Your task to perform on an android device: change keyboard looks Image 0: 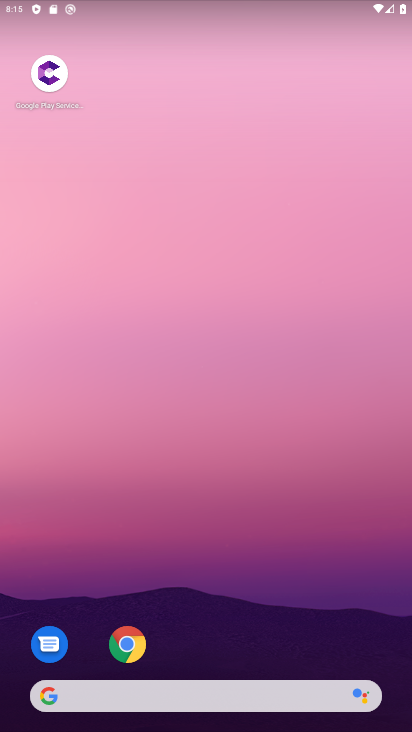
Step 0: drag from (359, 657) to (307, 69)
Your task to perform on an android device: change keyboard looks Image 1: 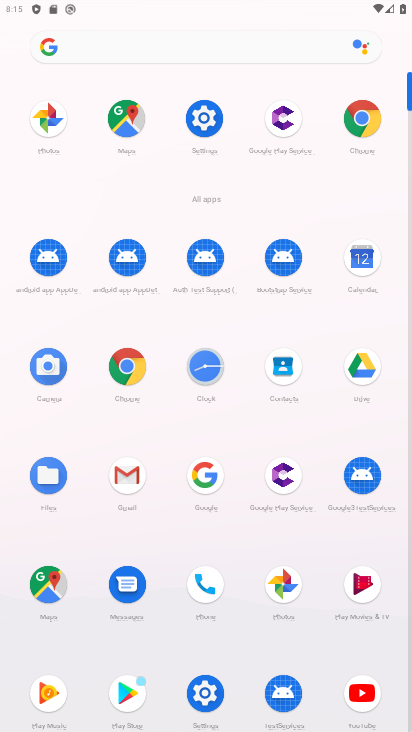
Step 1: click (201, 690)
Your task to perform on an android device: change keyboard looks Image 2: 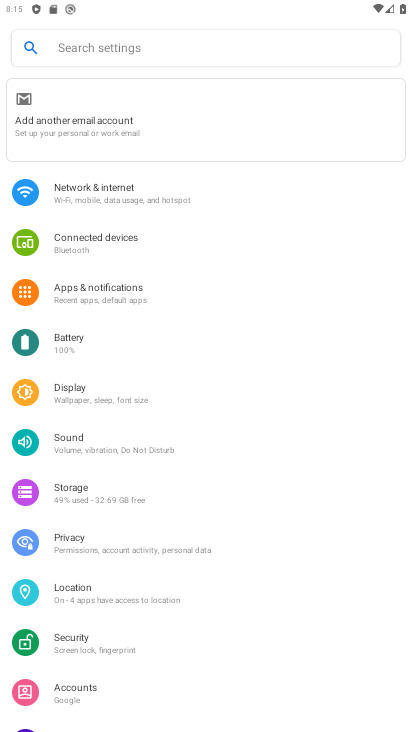
Step 2: drag from (150, 679) to (224, 306)
Your task to perform on an android device: change keyboard looks Image 3: 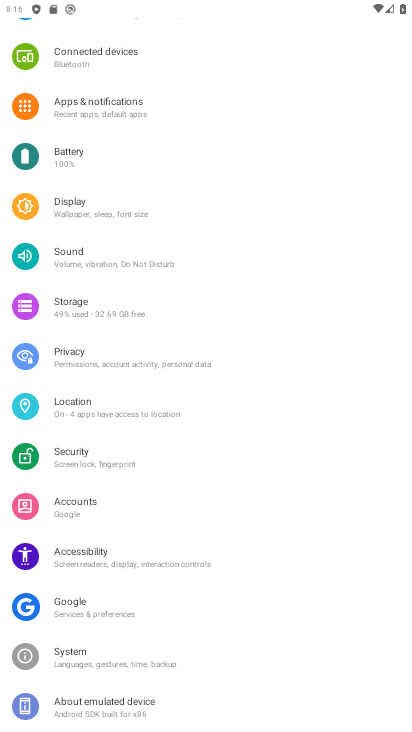
Step 3: click (96, 653)
Your task to perform on an android device: change keyboard looks Image 4: 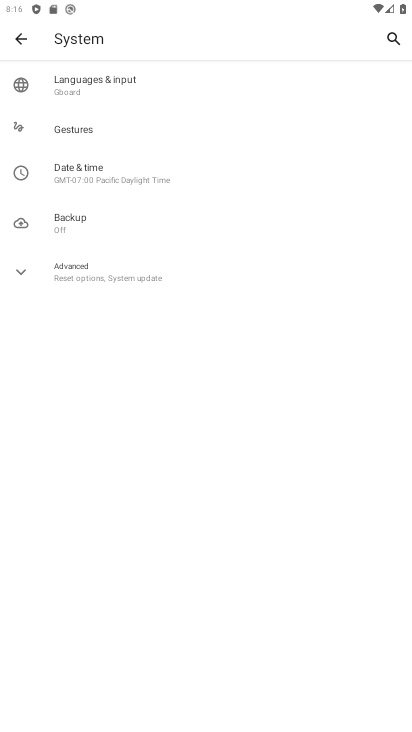
Step 4: click (98, 77)
Your task to perform on an android device: change keyboard looks Image 5: 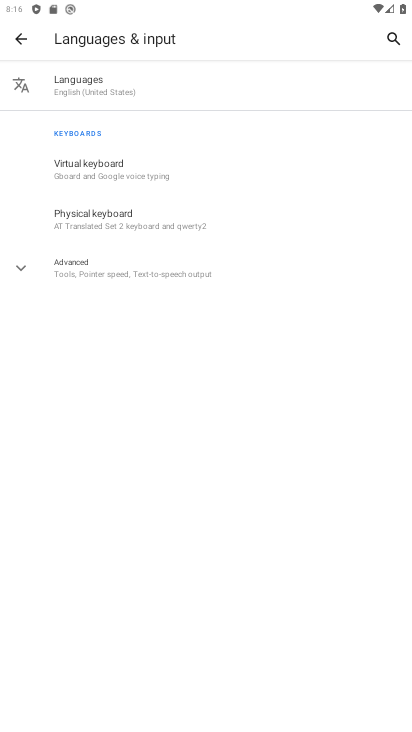
Step 5: click (88, 220)
Your task to perform on an android device: change keyboard looks Image 6: 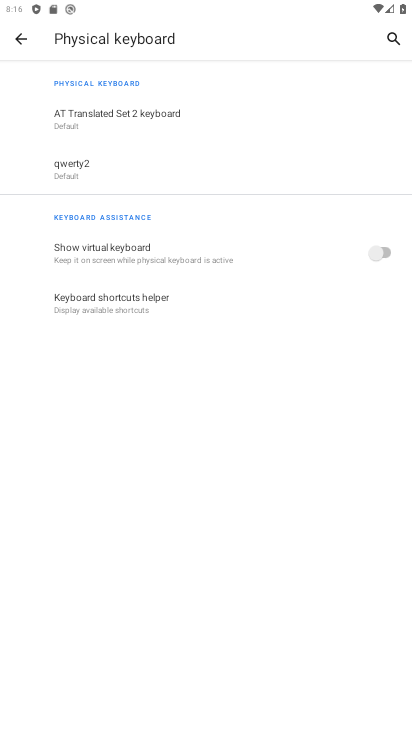
Step 6: click (62, 173)
Your task to perform on an android device: change keyboard looks Image 7: 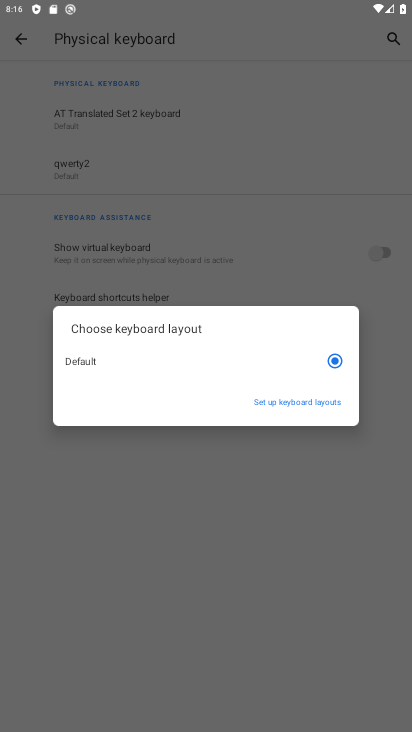
Step 7: click (293, 401)
Your task to perform on an android device: change keyboard looks Image 8: 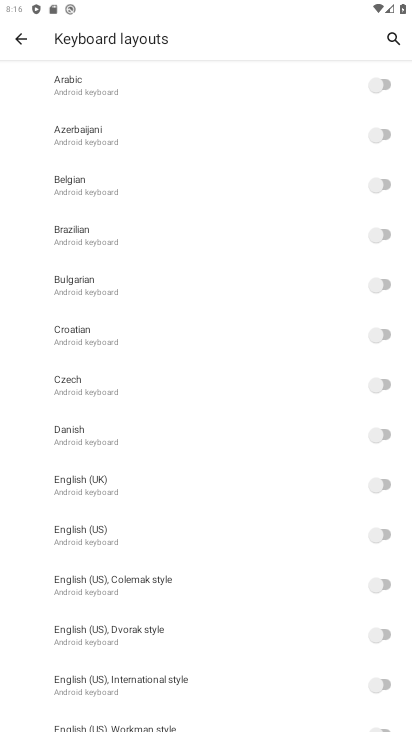
Step 8: click (390, 580)
Your task to perform on an android device: change keyboard looks Image 9: 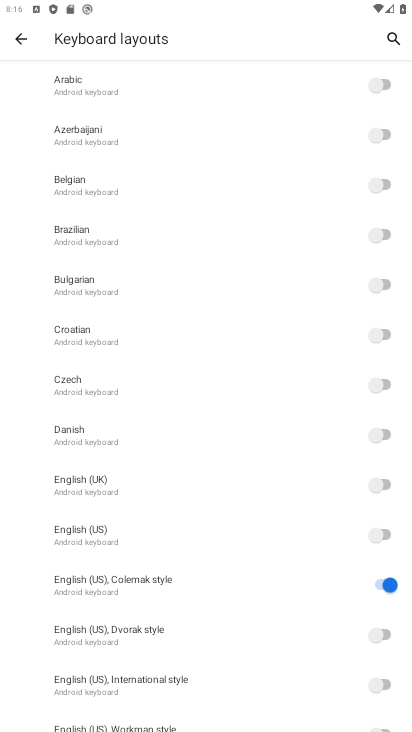
Step 9: task complete